Your task to perform on an android device: turn off wifi Image 0: 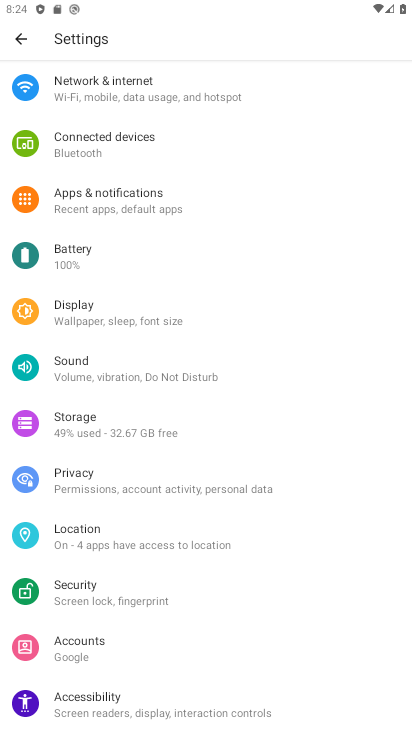
Step 0: drag from (206, 183) to (203, 574)
Your task to perform on an android device: turn off wifi Image 1: 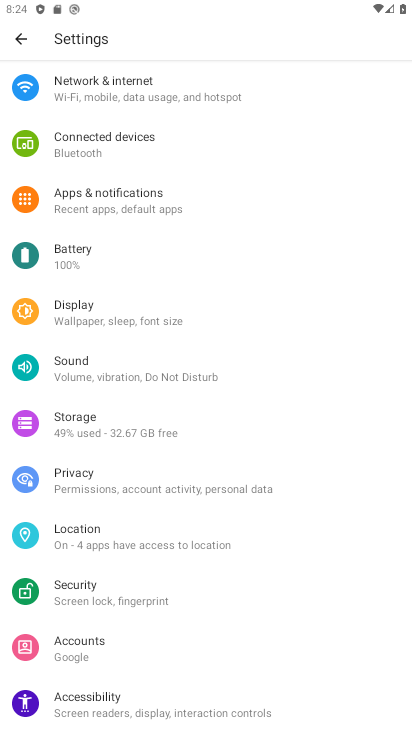
Step 1: click (127, 83)
Your task to perform on an android device: turn off wifi Image 2: 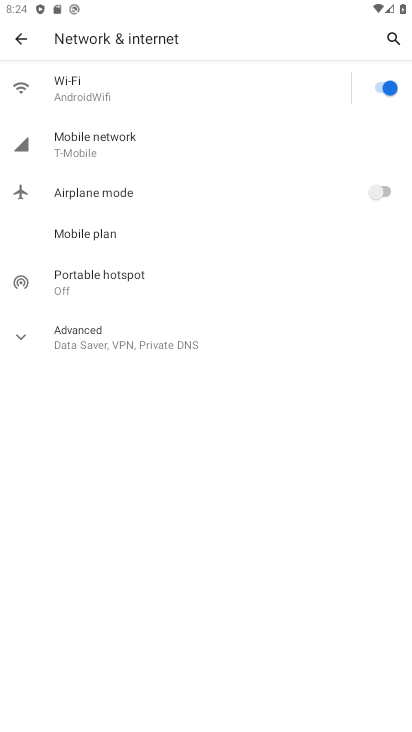
Step 2: click (374, 89)
Your task to perform on an android device: turn off wifi Image 3: 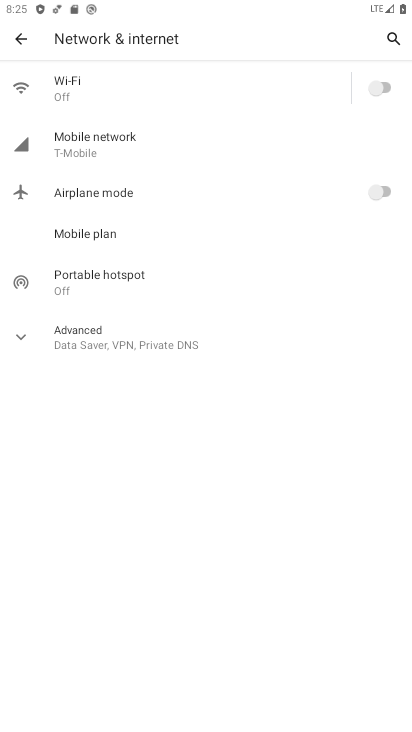
Step 3: task complete